Your task to perform on an android device: clear history in the chrome app Image 0: 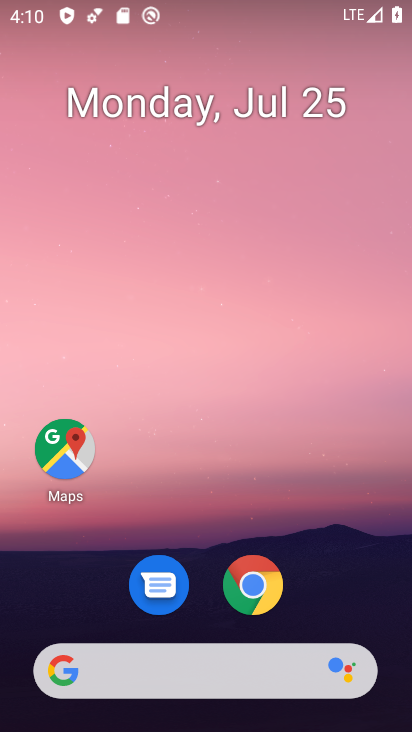
Step 0: click (264, 575)
Your task to perform on an android device: clear history in the chrome app Image 1: 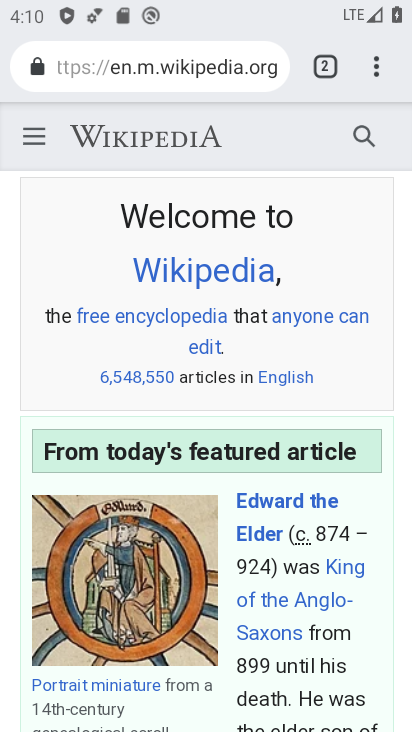
Step 1: click (376, 63)
Your task to perform on an android device: clear history in the chrome app Image 2: 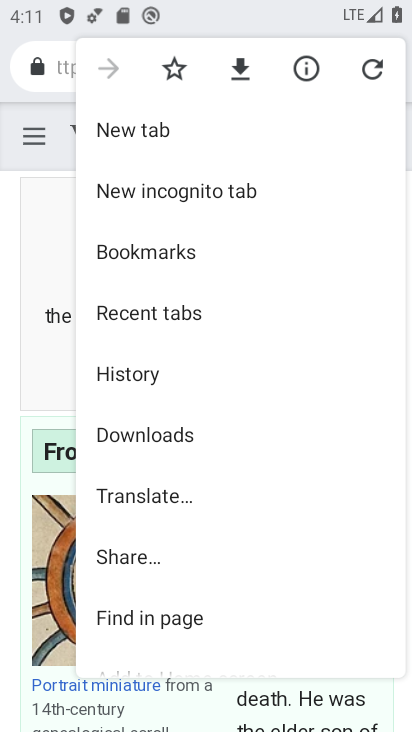
Step 2: click (149, 373)
Your task to perform on an android device: clear history in the chrome app Image 3: 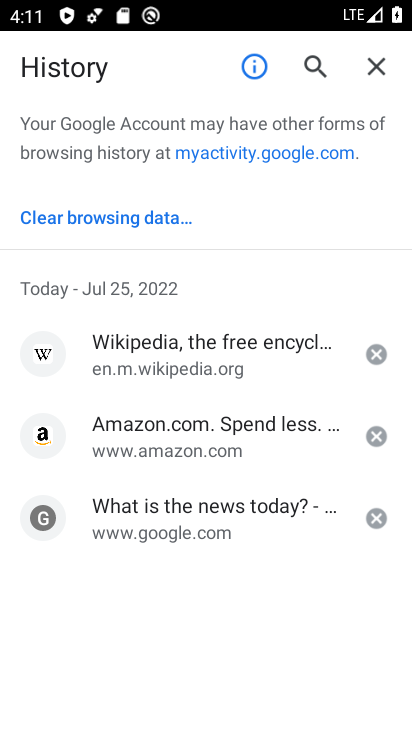
Step 3: click (129, 218)
Your task to perform on an android device: clear history in the chrome app Image 4: 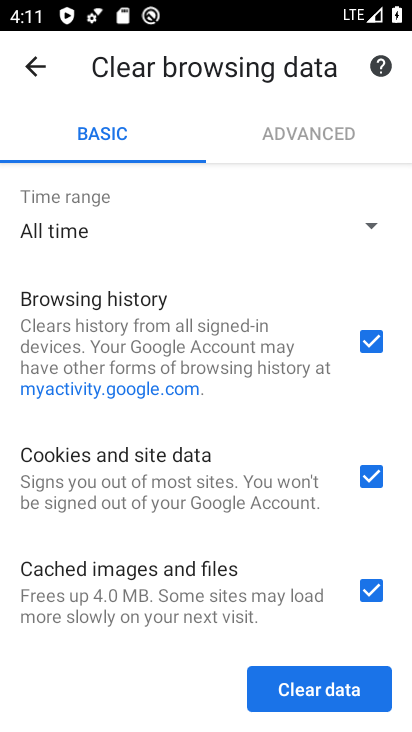
Step 4: click (323, 690)
Your task to perform on an android device: clear history in the chrome app Image 5: 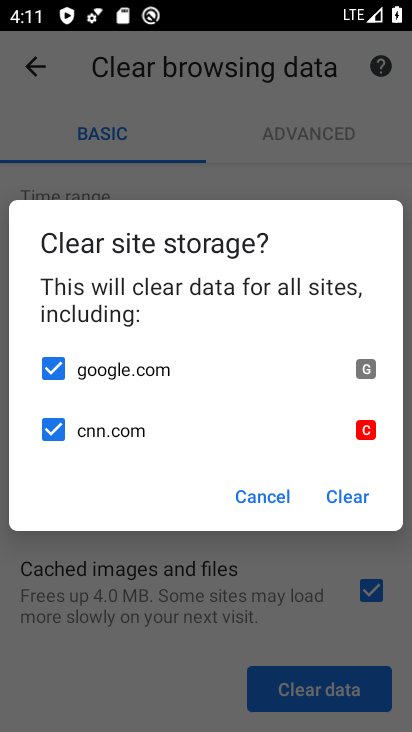
Step 5: click (348, 494)
Your task to perform on an android device: clear history in the chrome app Image 6: 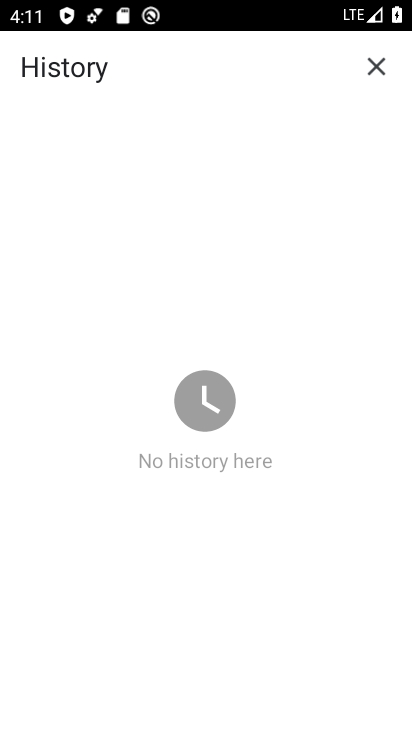
Step 6: task complete